Your task to perform on an android device: allow cookies in the chrome app Image 0: 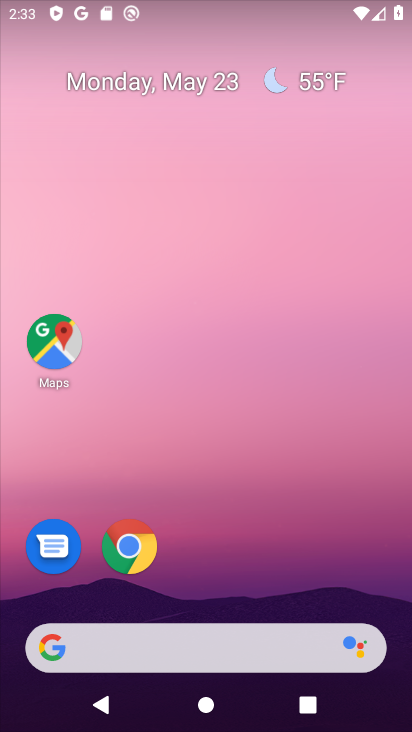
Step 0: drag from (294, 560) to (303, 231)
Your task to perform on an android device: allow cookies in the chrome app Image 1: 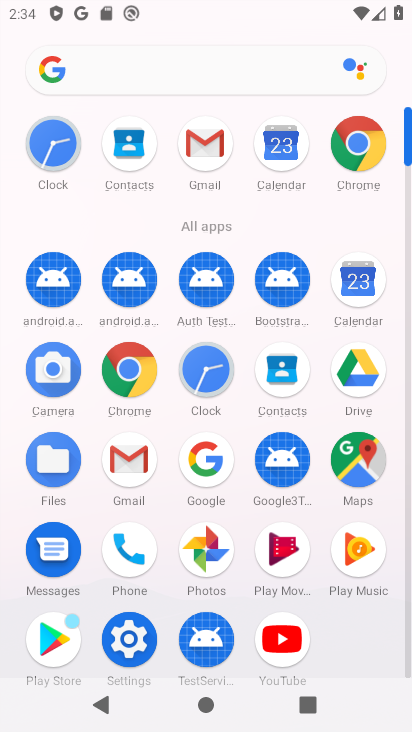
Step 1: click (127, 385)
Your task to perform on an android device: allow cookies in the chrome app Image 2: 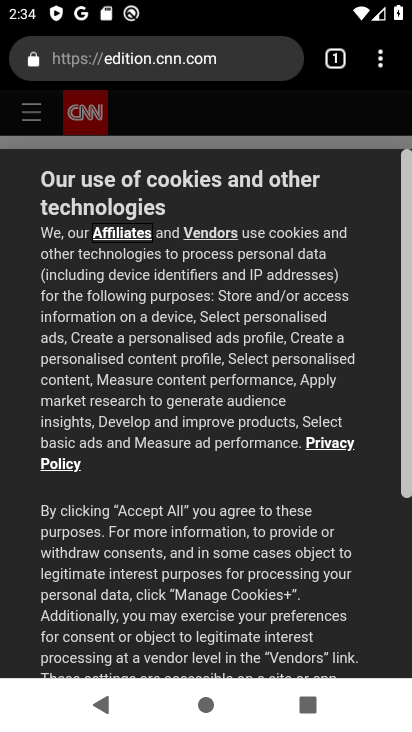
Step 2: drag from (395, 70) to (172, 572)
Your task to perform on an android device: allow cookies in the chrome app Image 3: 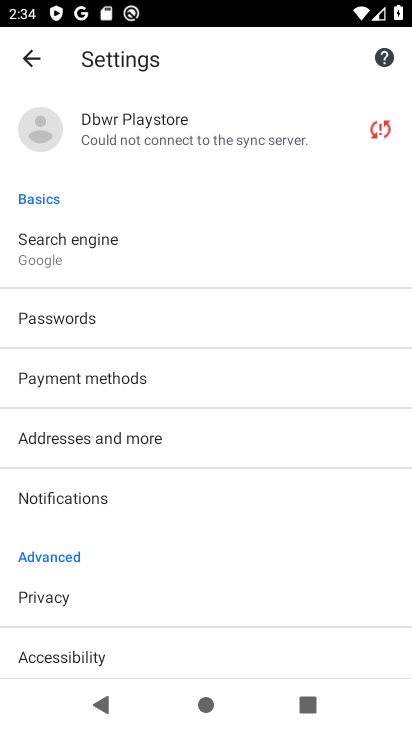
Step 3: drag from (128, 563) to (169, 252)
Your task to perform on an android device: allow cookies in the chrome app Image 4: 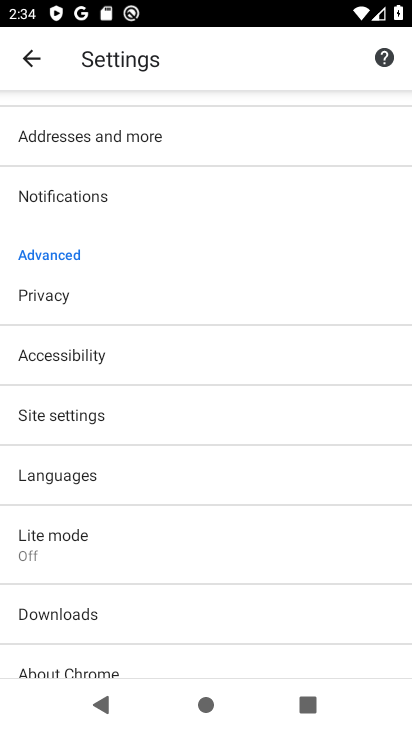
Step 4: drag from (198, 588) to (228, 346)
Your task to perform on an android device: allow cookies in the chrome app Image 5: 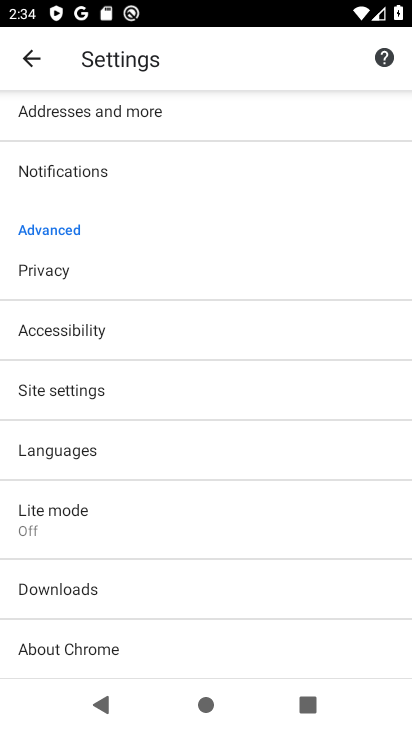
Step 5: click (69, 391)
Your task to perform on an android device: allow cookies in the chrome app Image 6: 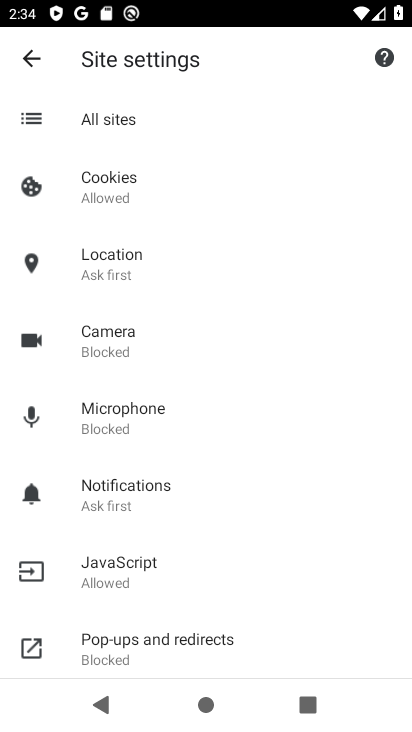
Step 6: click (107, 193)
Your task to perform on an android device: allow cookies in the chrome app Image 7: 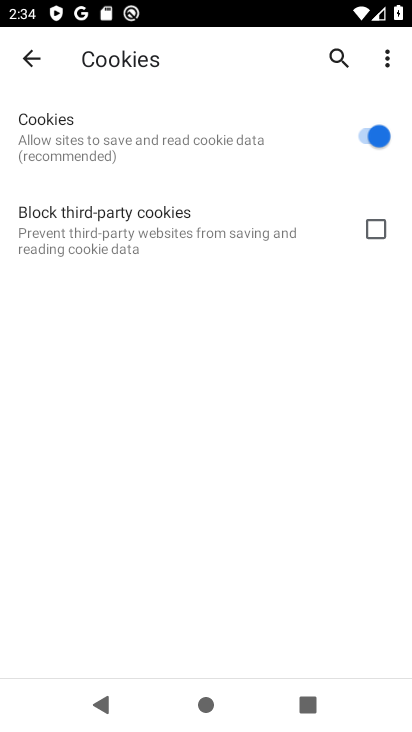
Step 7: task complete